Your task to perform on an android device: Open the phone app and click the voicemail tab. Image 0: 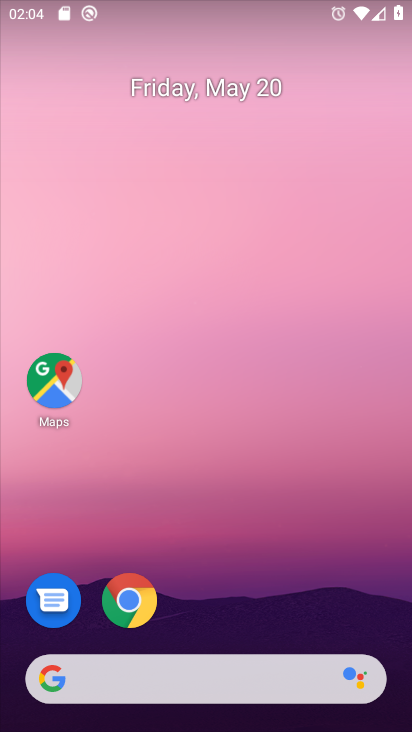
Step 0: drag from (237, 608) to (291, 11)
Your task to perform on an android device: Open the phone app and click the voicemail tab. Image 1: 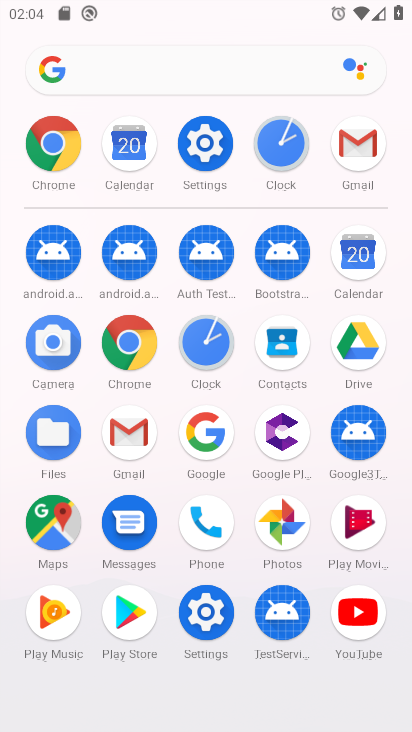
Step 1: click (203, 539)
Your task to perform on an android device: Open the phone app and click the voicemail tab. Image 2: 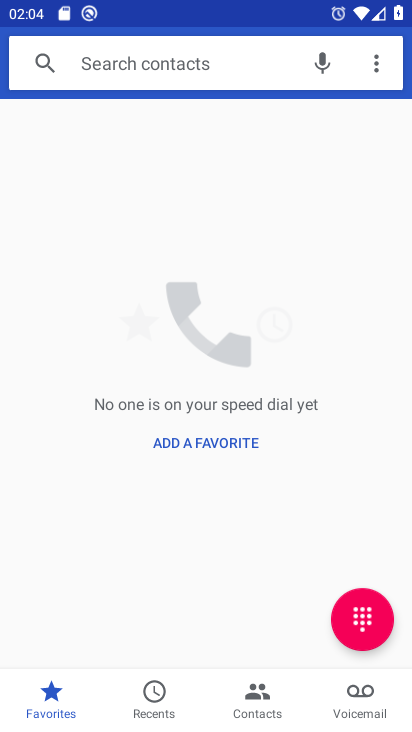
Step 2: click (374, 699)
Your task to perform on an android device: Open the phone app and click the voicemail tab. Image 3: 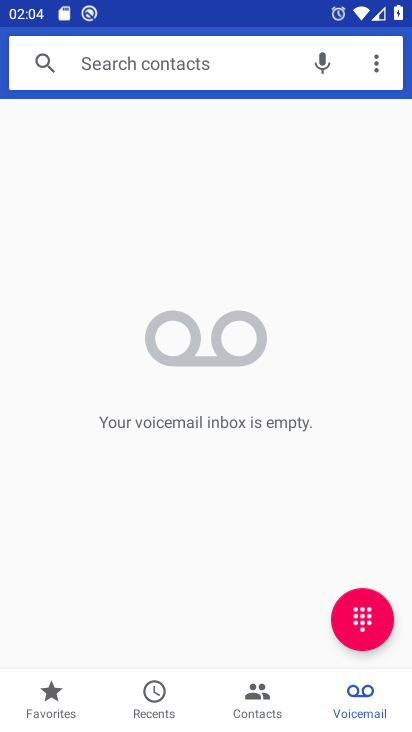
Step 3: task complete